Your task to perform on an android device: toggle data saver in the chrome app Image 0: 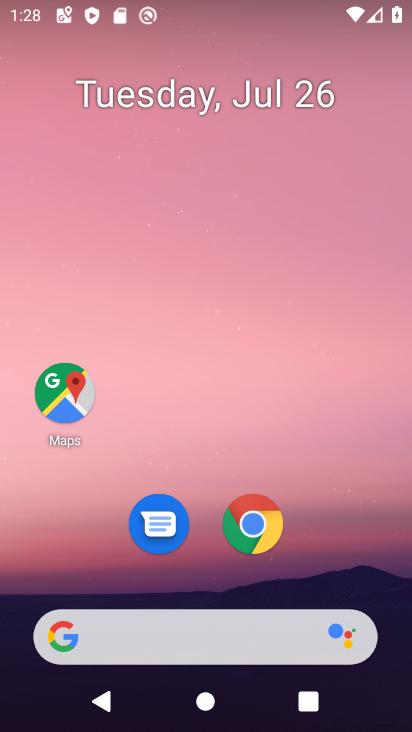
Step 0: click (267, 526)
Your task to perform on an android device: toggle data saver in the chrome app Image 1: 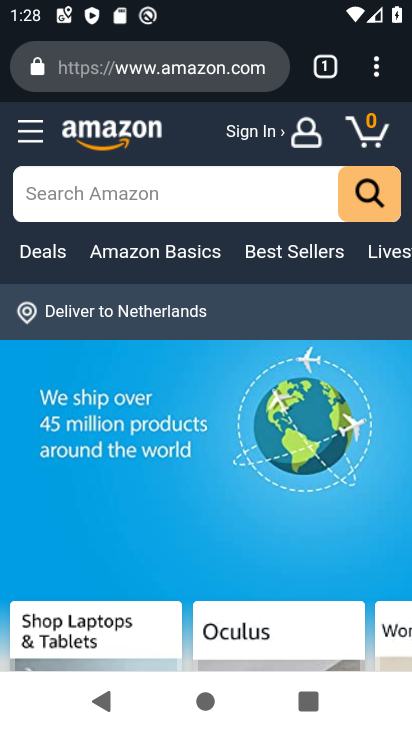
Step 1: click (381, 70)
Your task to perform on an android device: toggle data saver in the chrome app Image 2: 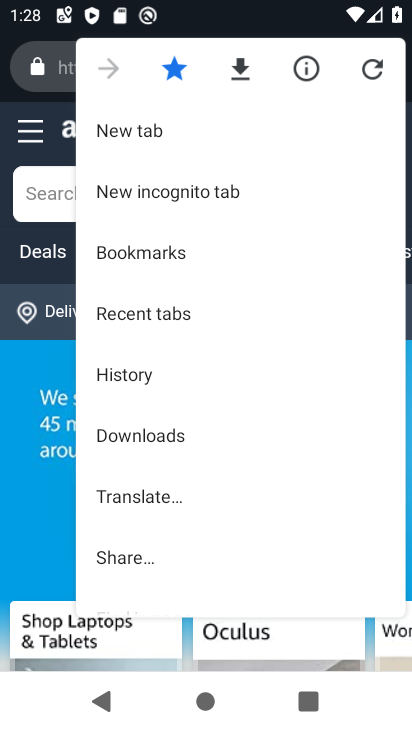
Step 2: drag from (270, 493) to (271, 151)
Your task to perform on an android device: toggle data saver in the chrome app Image 3: 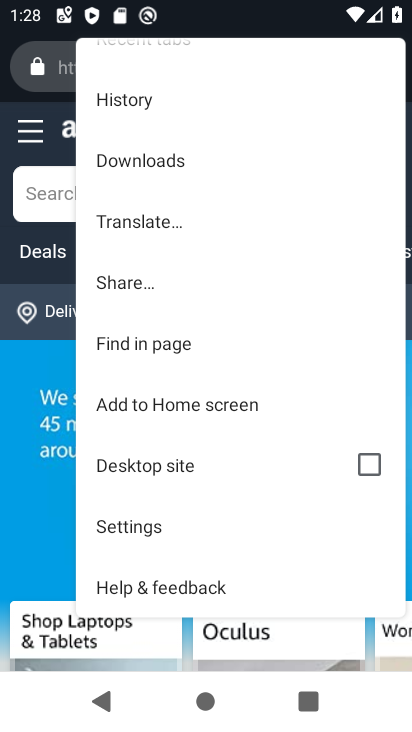
Step 3: click (148, 523)
Your task to perform on an android device: toggle data saver in the chrome app Image 4: 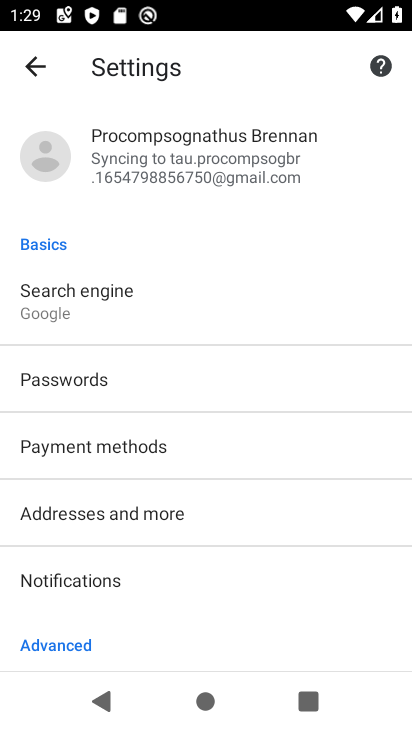
Step 4: drag from (238, 551) to (247, 151)
Your task to perform on an android device: toggle data saver in the chrome app Image 5: 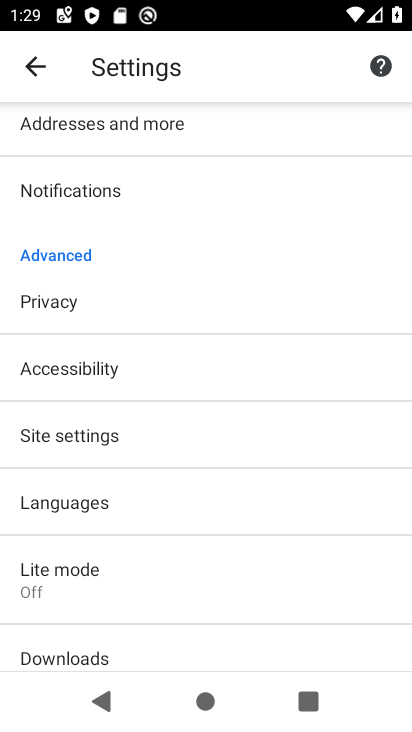
Step 5: click (108, 580)
Your task to perform on an android device: toggle data saver in the chrome app Image 6: 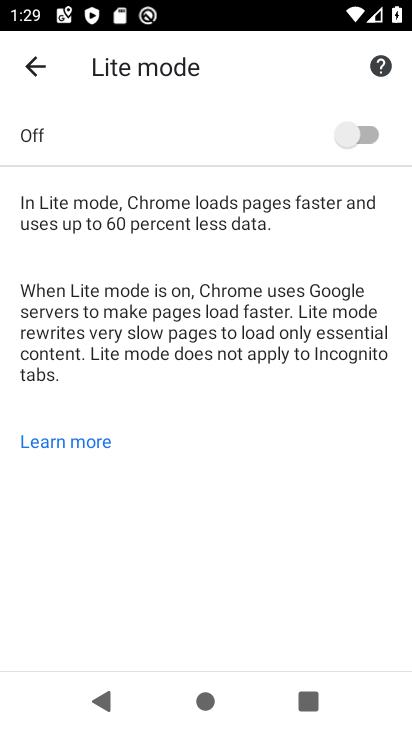
Step 6: click (363, 133)
Your task to perform on an android device: toggle data saver in the chrome app Image 7: 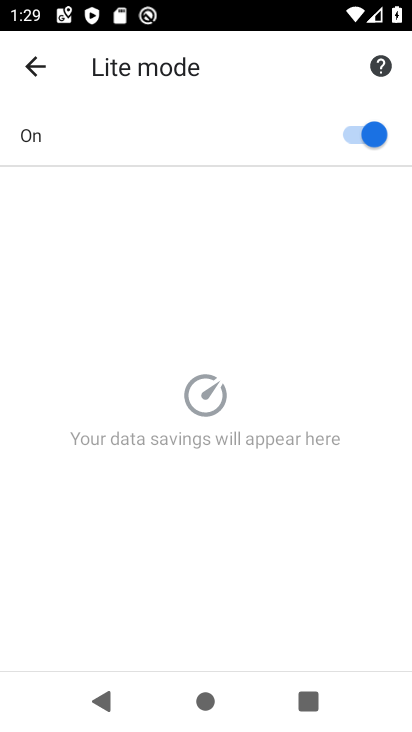
Step 7: task complete